Your task to perform on an android device: change the upload size in google photos Image 0: 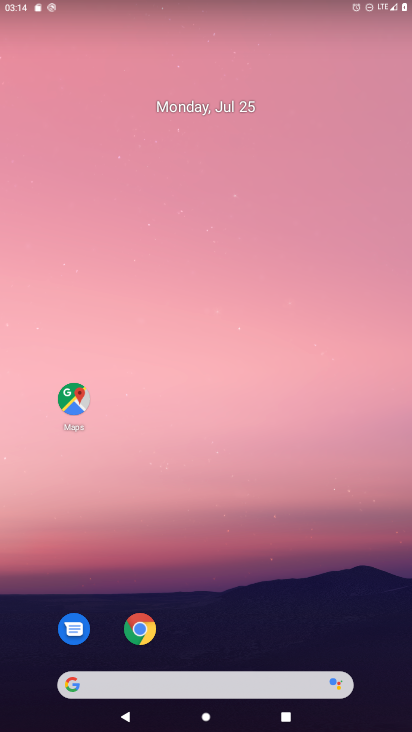
Step 0: drag from (290, 504) to (352, 156)
Your task to perform on an android device: change the upload size in google photos Image 1: 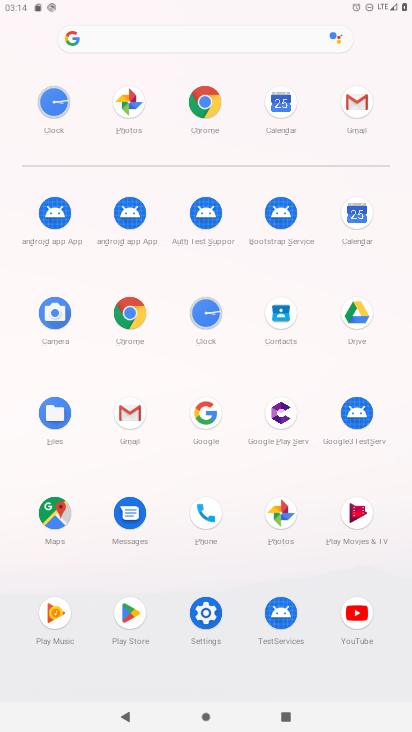
Step 1: click (281, 505)
Your task to perform on an android device: change the upload size in google photos Image 2: 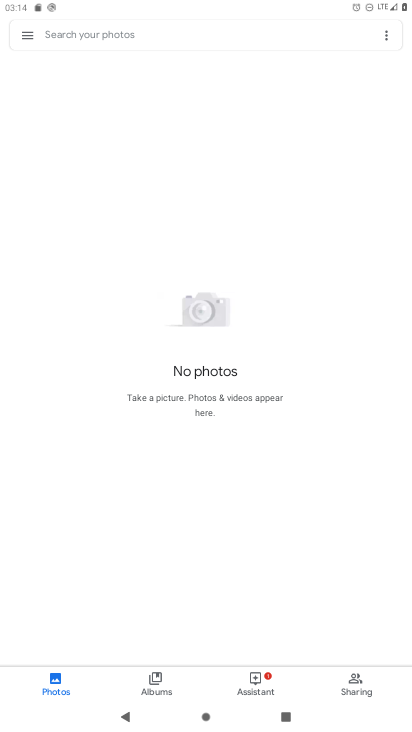
Step 2: click (34, 28)
Your task to perform on an android device: change the upload size in google photos Image 3: 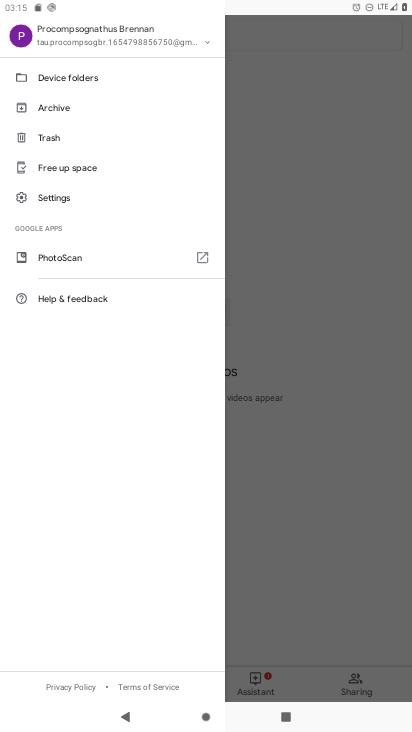
Step 3: click (68, 191)
Your task to perform on an android device: change the upload size in google photos Image 4: 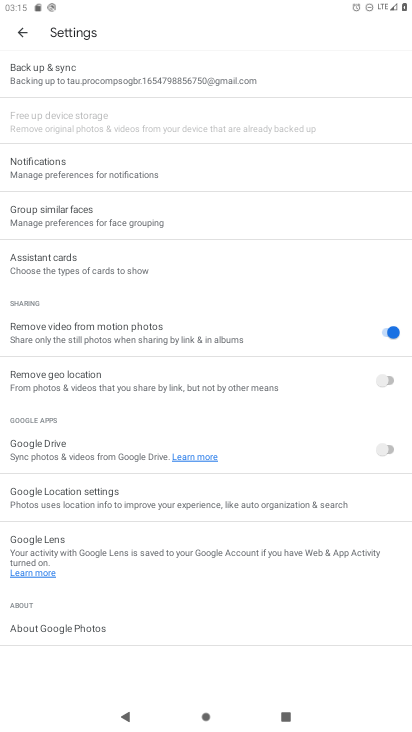
Step 4: click (99, 75)
Your task to perform on an android device: change the upload size in google photos Image 5: 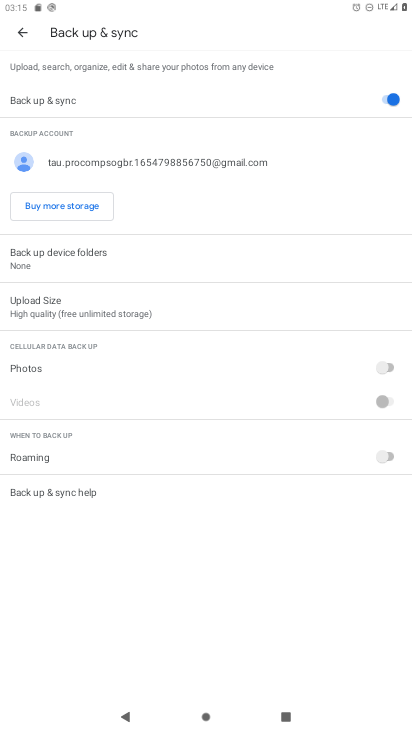
Step 5: click (60, 304)
Your task to perform on an android device: change the upload size in google photos Image 6: 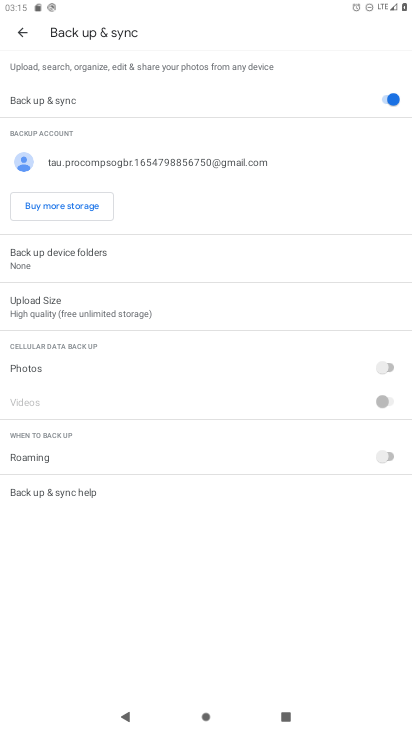
Step 6: click (57, 308)
Your task to perform on an android device: change the upload size in google photos Image 7: 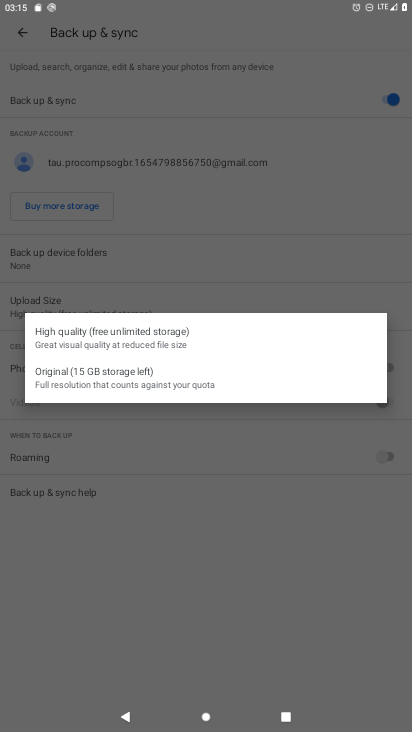
Step 7: click (139, 380)
Your task to perform on an android device: change the upload size in google photos Image 8: 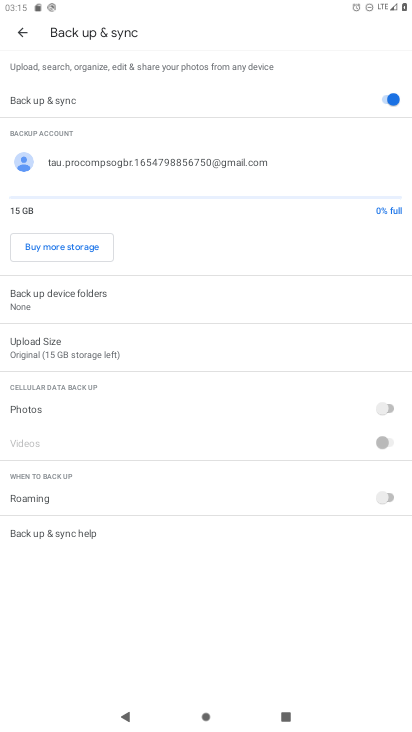
Step 8: task complete